Your task to perform on an android device: toggle translation in the chrome app Image 0: 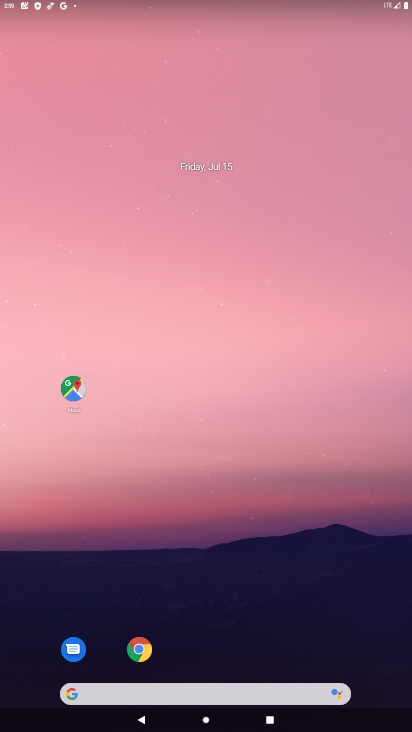
Step 0: click (153, 643)
Your task to perform on an android device: toggle translation in the chrome app Image 1: 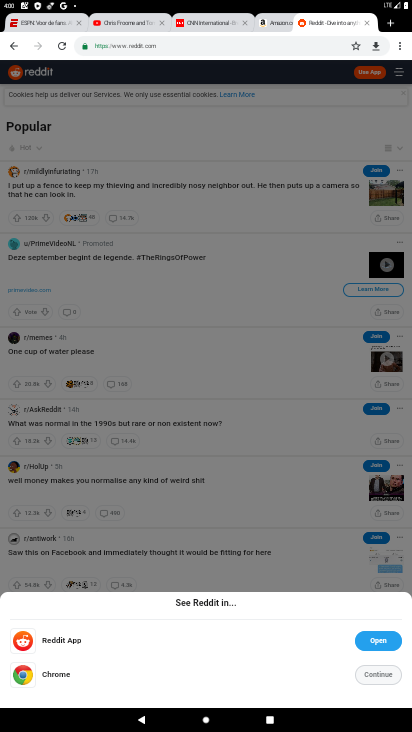
Step 1: click (395, 44)
Your task to perform on an android device: toggle translation in the chrome app Image 2: 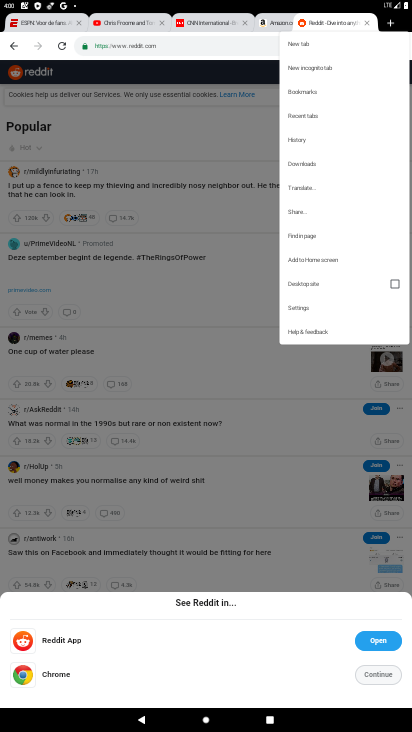
Step 2: click (323, 305)
Your task to perform on an android device: toggle translation in the chrome app Image 3: 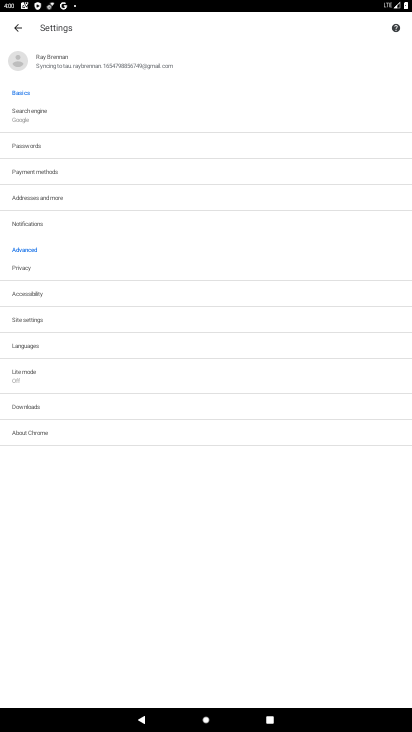
Step 3: click (52, 346)
Your task to perform on an android device: toggle translation in the chrome app Image 4: 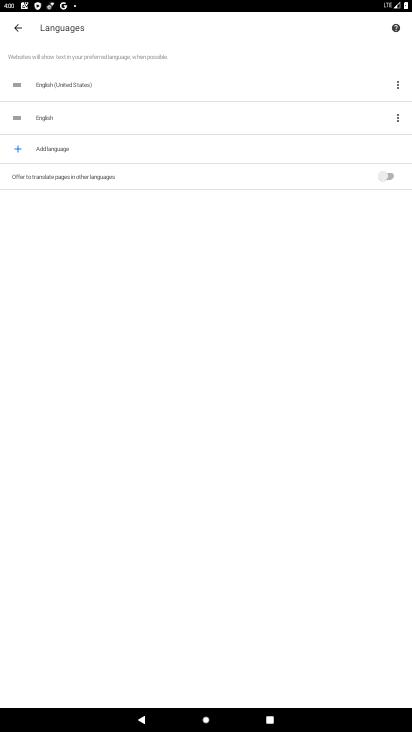
Step 4: click (393, 172)
Your task to perform on an android device: toggle translation in the chrome app Image 5: 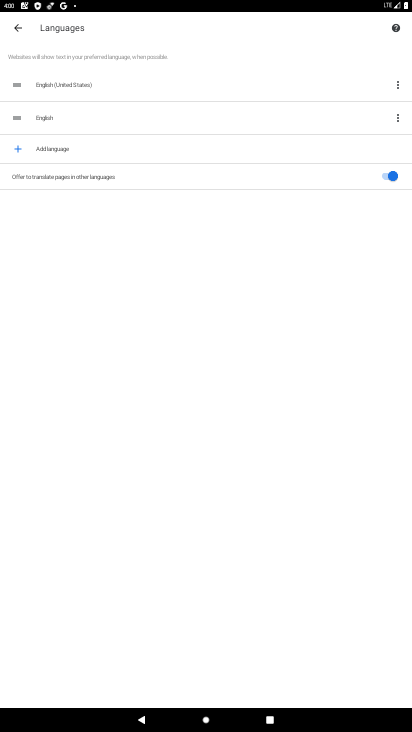
Step 5: task complete